Your task to perform on an android device: Go to battery settings Image 0: 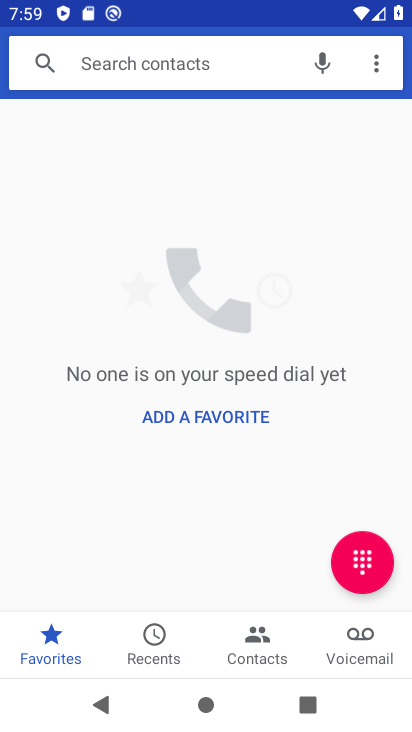
Step 0: press home button
Your task to perform on an android device: Go to battery settings Image 1: 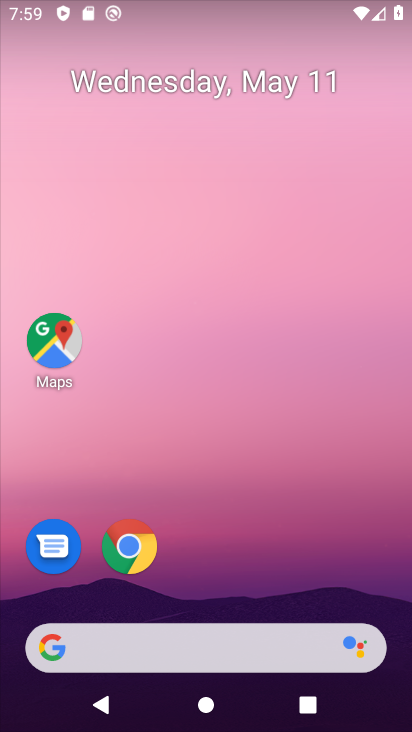
Step 1: drag from (232, 600) to (253, 134)
Your task to perform on an android device: Go to battery settings Image 2: 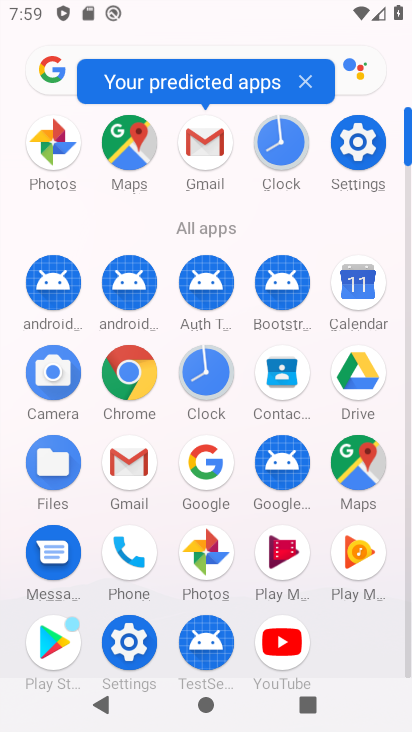
Step 2: click (327, 144)
Your task to perform on an android device: Go to battery settings Image 3: 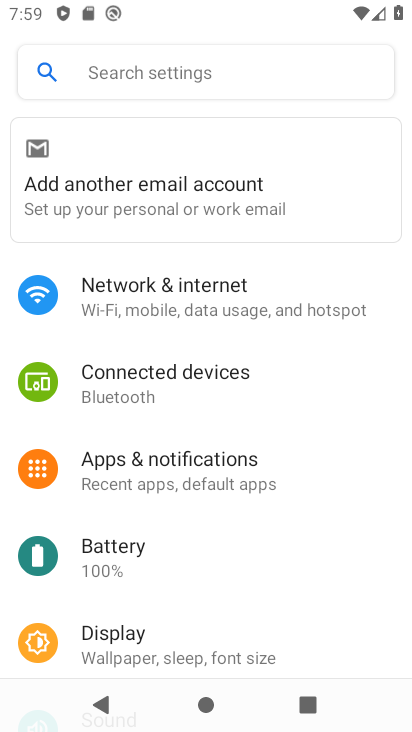
Step 3: click (160, 541)
Your task to perform on an android device: Go to battery settings Image 4: 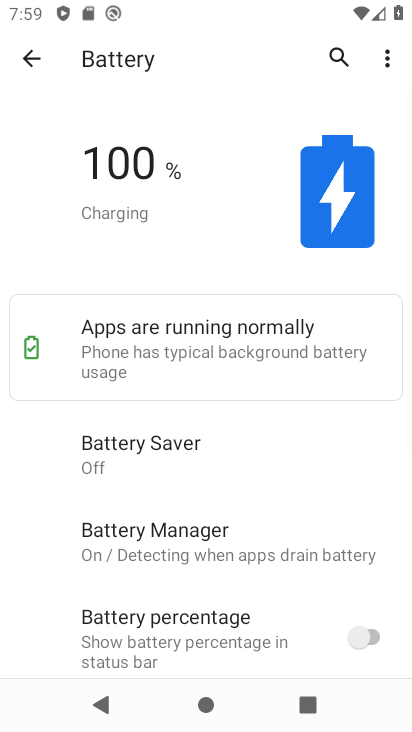
Step 4: task complete